Your task to perform on an android device: Open calendar and show me the fourth week of next month Image 0: 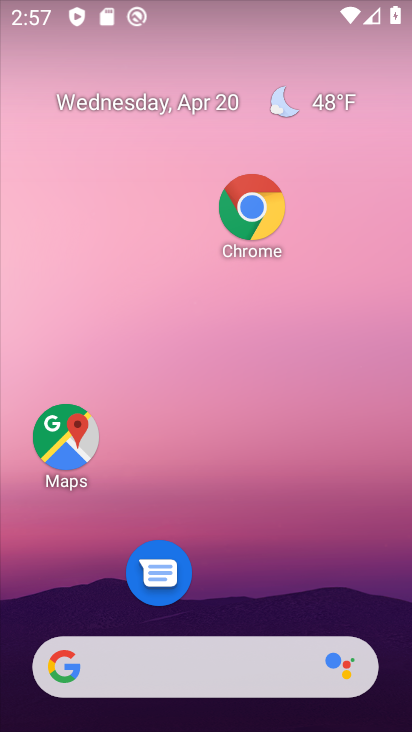
Step 0: drag from (333, 590) to (344, 52)
Your task to perform on an android device: Open calendar and show me the fourth week of next month Image 1: 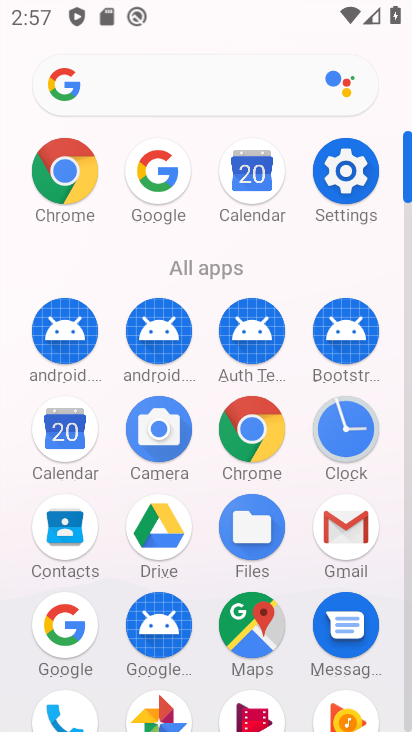
Step 1: click (71, 429)
Your task to perform on an android device: Open calendar and show me the fourth week of next month Image 2: 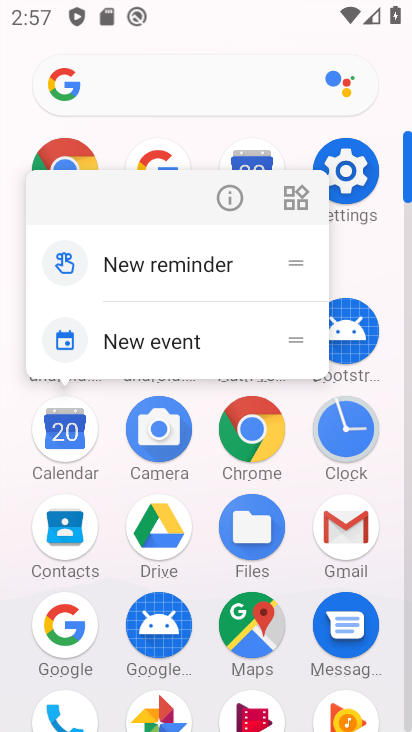
Step 2: click (71, 428)
Your task to perform on an android device: Open calendar and show me the fourth week of next month Image 3: 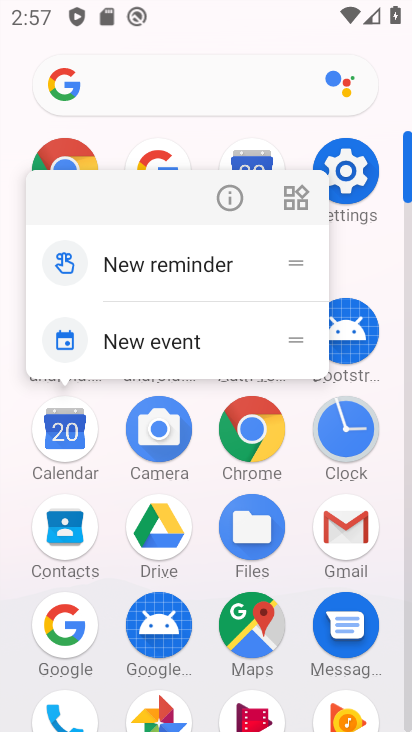
Step 3: click (71, 428)
Your task to perform on an android device: Open calendar and show me the fourth week of next month Image 4: 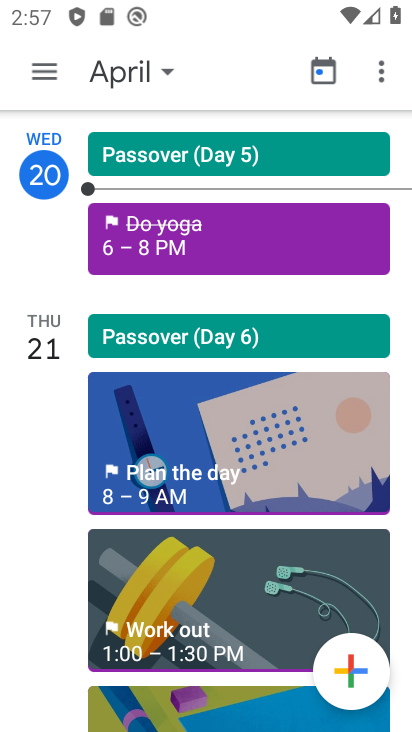
Step 4: click (150, 72)
Your task to perform on an android device: Open calendar and show me the fourth week of next month Image 5: 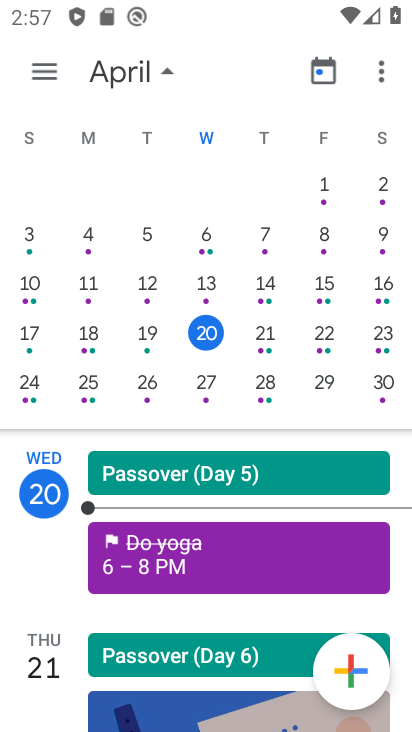
Step 5: drag from (351, 312) to (54, 326)
Your task to perform on an android device: Open calendar and show me the fourth week of next month Image 6: 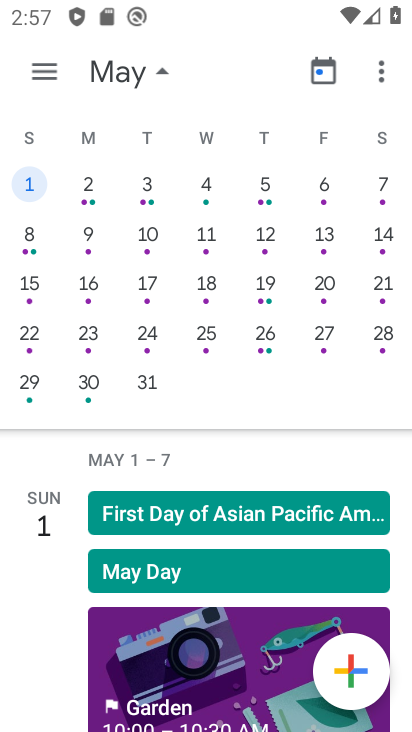
Step 6: click (30, 328)
Your task to perform on an android device: Open calendar and show me the fourth week of next month Image 7: 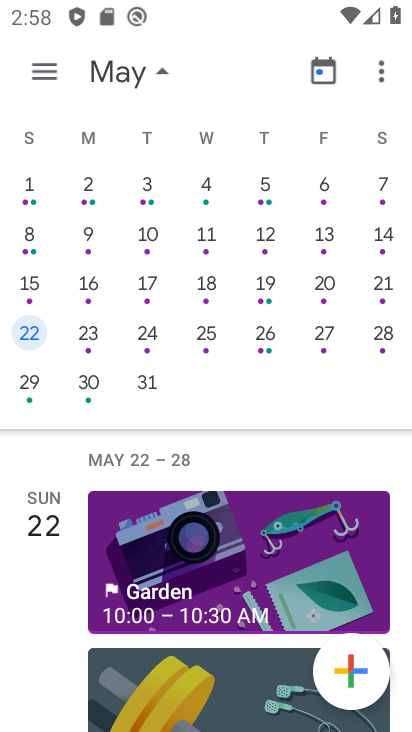
Step 7: task complete